Your task to perform on an android device: Go to Yahoo.com Image 0: 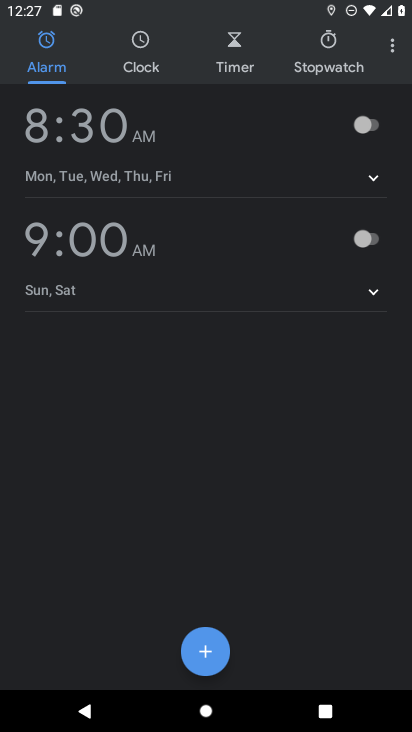
Step 0: press home button
Your task to perform on an android device: Go to Yahoo.com Image 1: 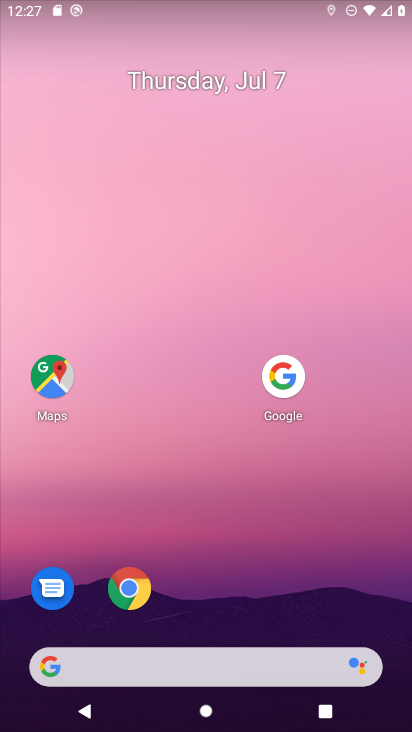
Step 1: click (135, 598)
Your task to perform on an android device: Go to Yahoo.com Image 2: 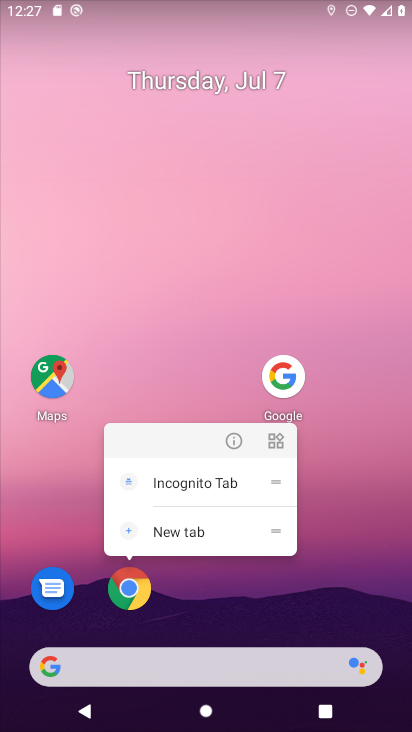
Step 2: click (137, 587)
Your task to perform on an android device: Go to Yahoo.com Image 3: 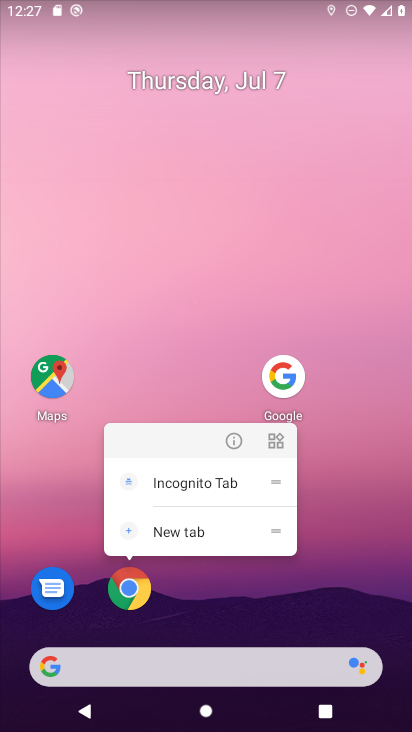
Step 3: click (130, 594)
Your task to perform on an android device: Go to Yahoo.com Image 4: 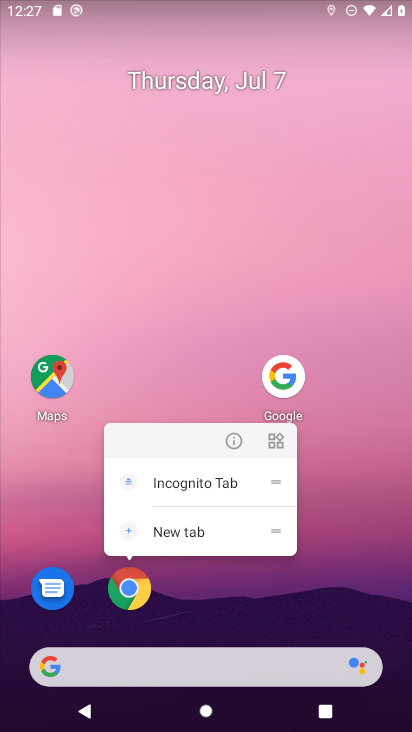
Step 4: click (130, 598)
Your task to perform on an android device: Go to Yahoo.com Image 5: 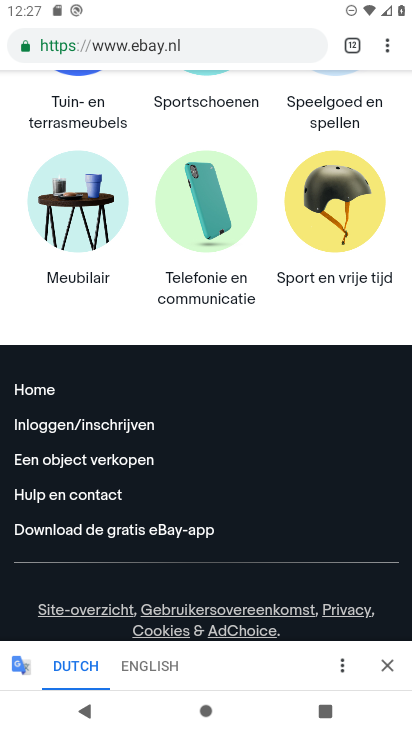
Step 5: click (387, 55)
Your task to perform on an android device: Go to Yahoo.com Image 6: 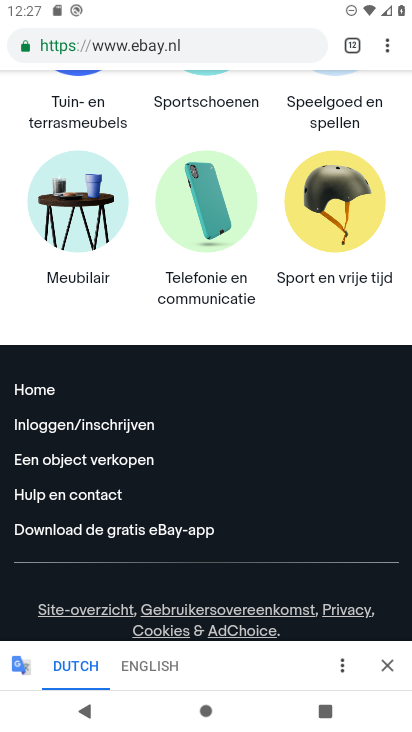
Step 6: drag from (384, 48) to (255, 85)
Your task to perform on an android device: Go to Yahoo.com Image 7: 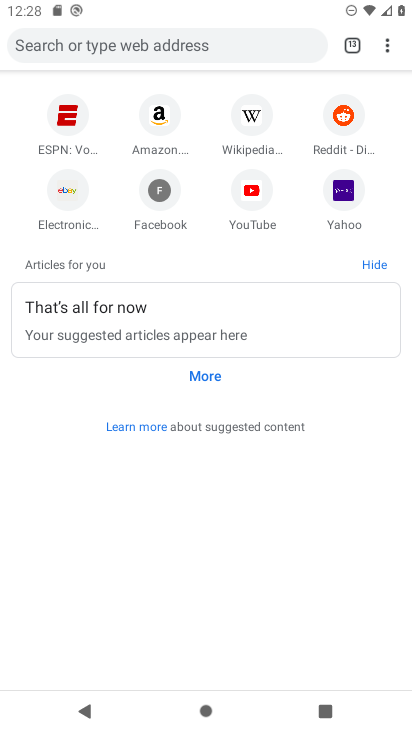
Step 7: click (347, 195)
Your task to perform on an android device: Go to Yahoo.com Image 8: 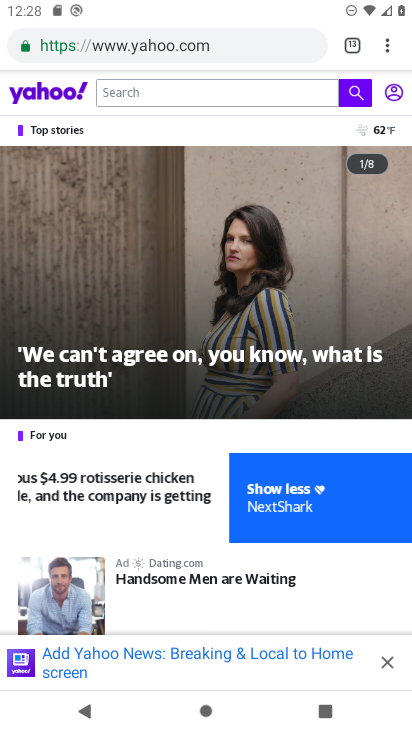
Step 8: task complete